Your task to perform on an android device: turn on javascript in the chrome app Image 0: 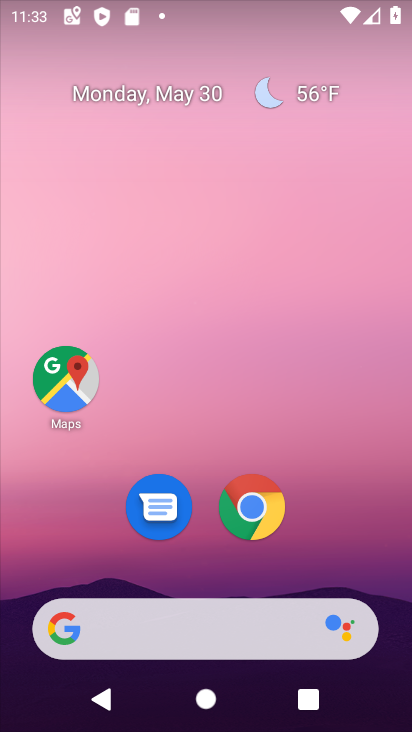
Step 0: press home button
Your task to perform on an android device: turn on javascript in the chrome app Image 1: 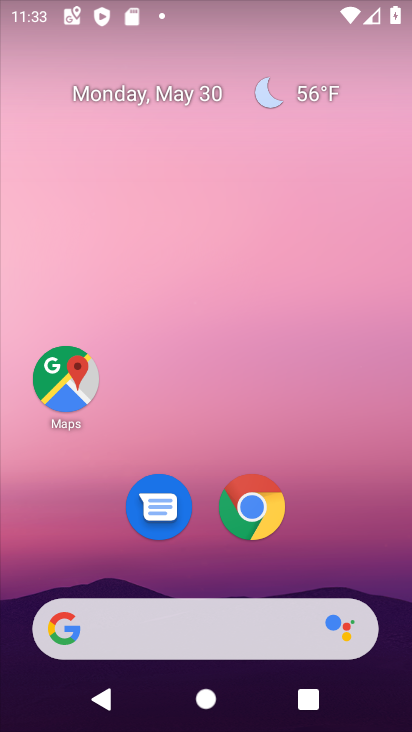
Step 1: click (250, 508)
Your task to perform on an android device: turn on javascript in the chrome app Image 2: 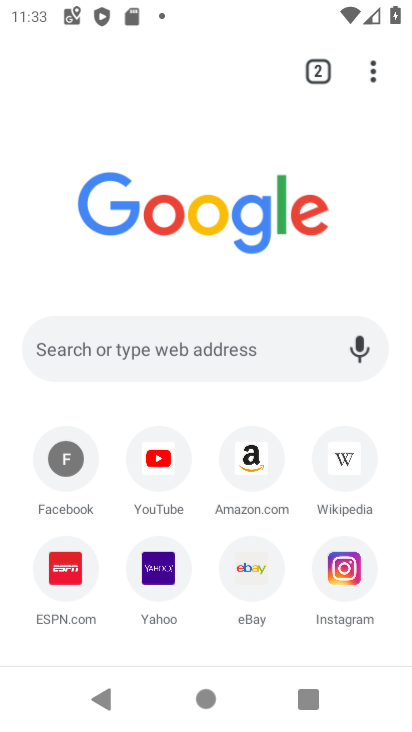
Step 2: click (371, 70)
Your task to perform on an android device: turn on javascript in the chrome app Image 3: 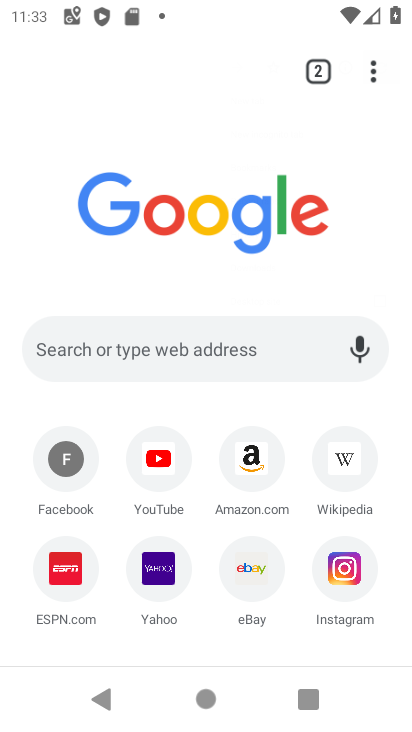
Step 3: click (373, 67)
Your task to perform on an android device: turn on javascript in the chrome app Image 4: 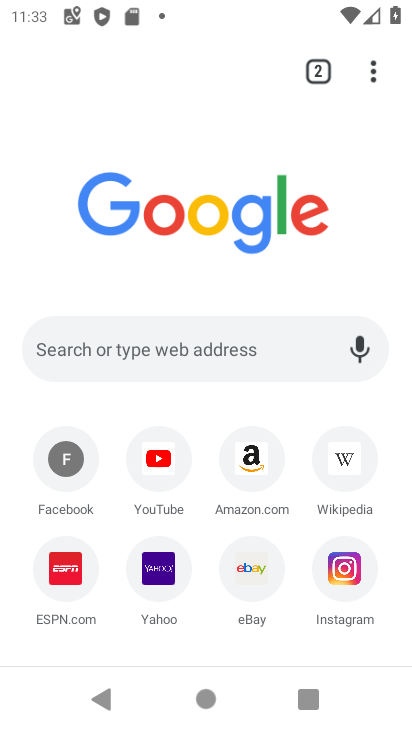
Step 4: click (373, 67)
Your task to perform on an android device: turn on javascript in the chrome app Image 5: 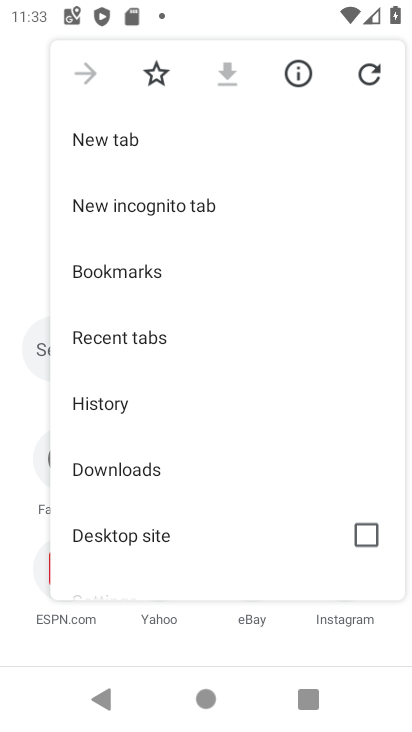
Step 5: drag from (241, 514) to (242, 53)
Your task to perform on an android device: turn on javascript in the chrome app Image 6: 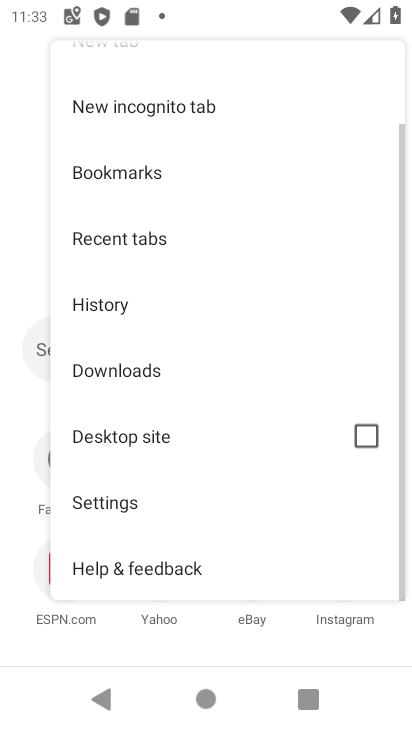
Step 6: click (150, 510)
Your task to perform on an android device: turn on javascript in the chrome app Image 7: 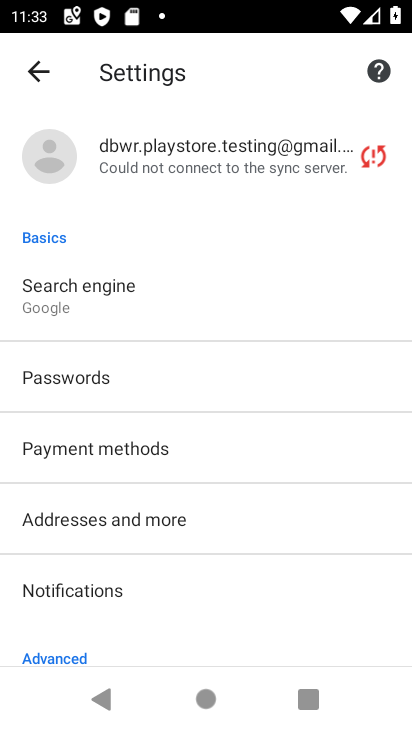
Step 7: drag from (276, 617) to (260, 138)
Your task to perform on an android device: turn on javascript in the chrome app Image 8: 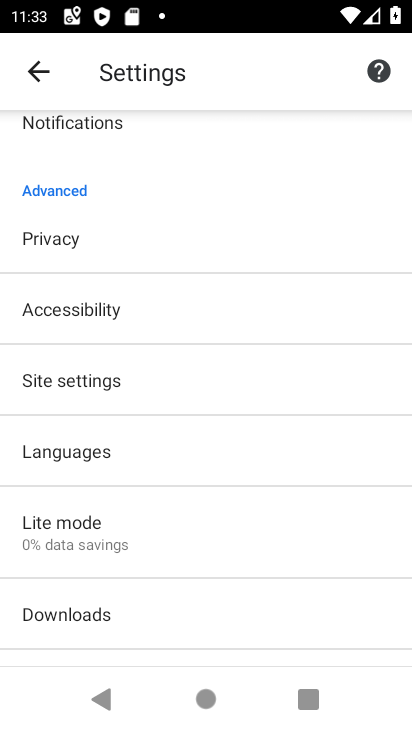
Step 8: click (161, 386)
Your task to perform on an android device: turn on javascript in the chrome app Image 9: 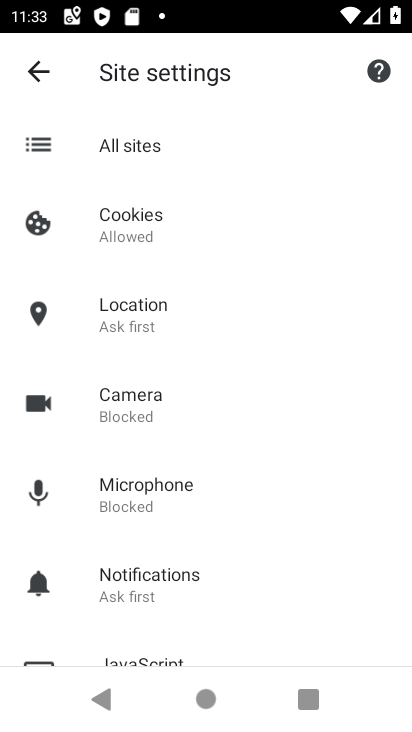
Step 9: drag from (308, 619) to (299, 134)
Your task to perform on an android device: turn on javascript in the chrome app Image 10: 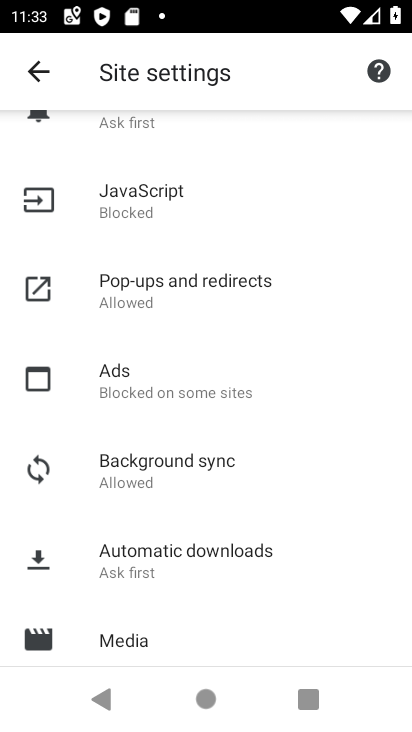
Step 10: click (177, 196)
Your task to perform on an android device: turn on javascript in the chrome app Image 11: 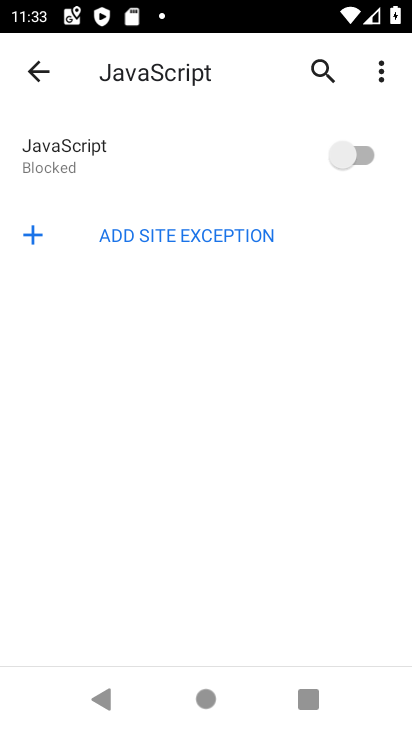
Step 11: click (359, 149)
Your task to perform on an android device: turn on javascript in the chrome app Image 12: 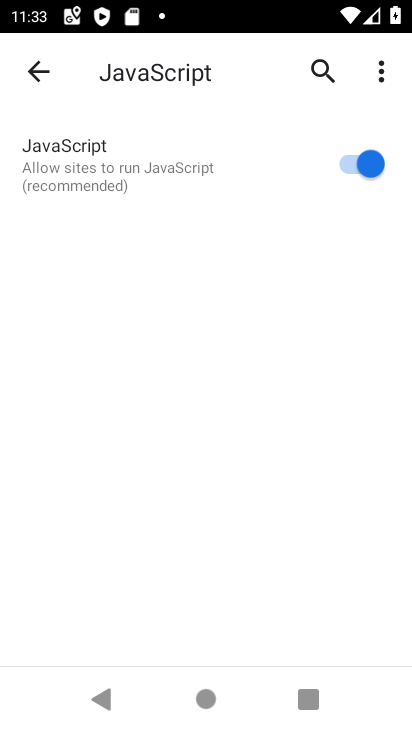
Step 12: task complete